Your task to perform on an android device: Go to Wikipedia Image 0: 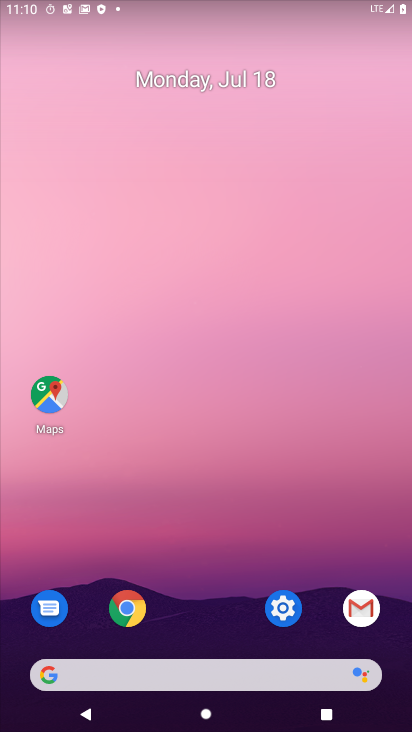
Step 0: click (144, 615)
Your task to perform on an android device: Go to Wikipedia Image 1: 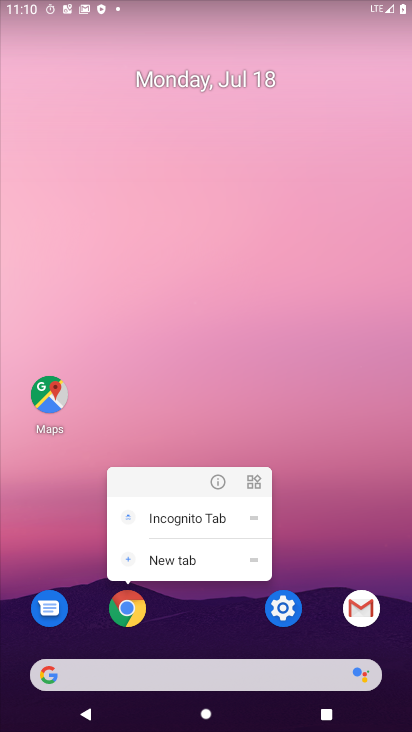
Step 1: click (132, 610)
Your task to perform on an android device: Go to Wikipedia Image 2: 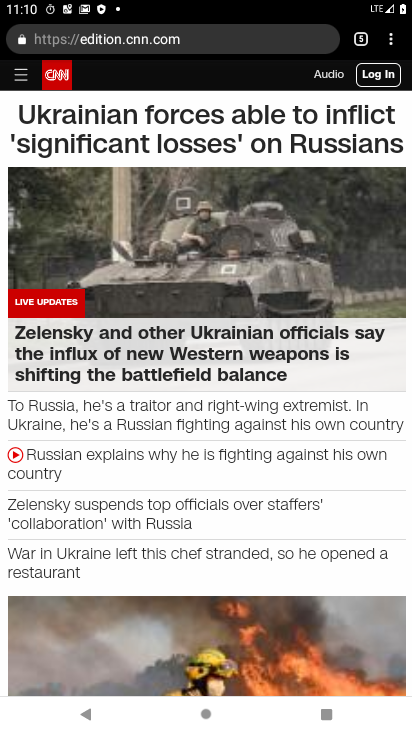
Step 2: click (359, 40)
Your task to perform on an android device: Go to Wikipedia Image 3: 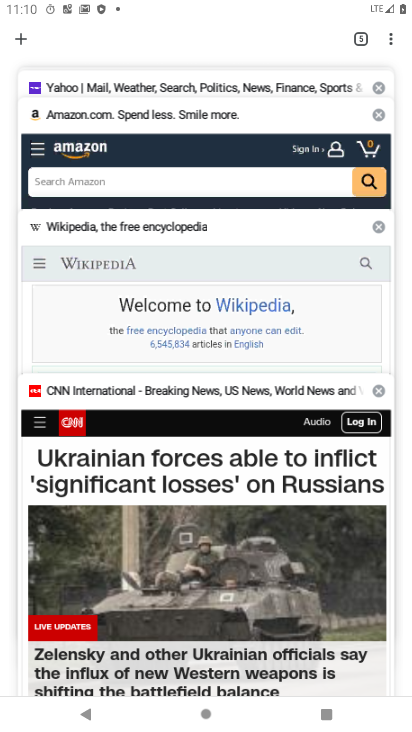
Step 3: click (18, 35)
Your task to perform on an android device: Go to Wikipedia Image 4: 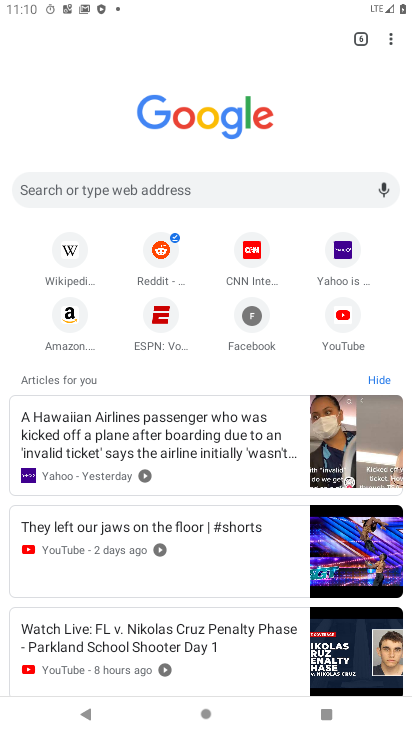
Step 4: click (78, 246)
Your task to perform on an android device: Go to Wikipedia Image 5: 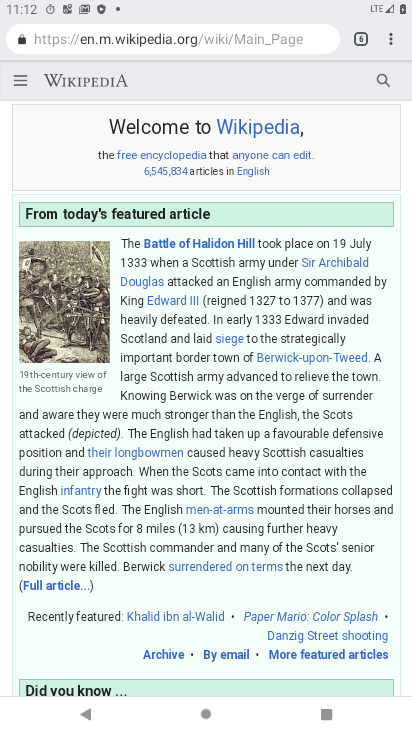
Step 5: task complete